Your task to perform on an android device: Go to ESPN.com Image 0: 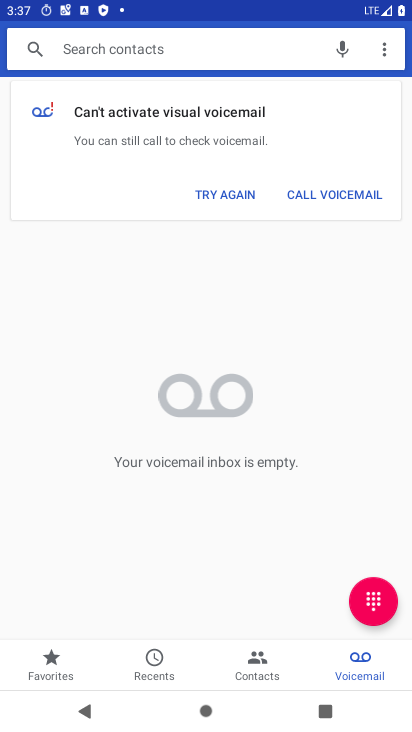
Step 0: press home button
Your task to perform on an android device: Go to ESPN.com Image 1: 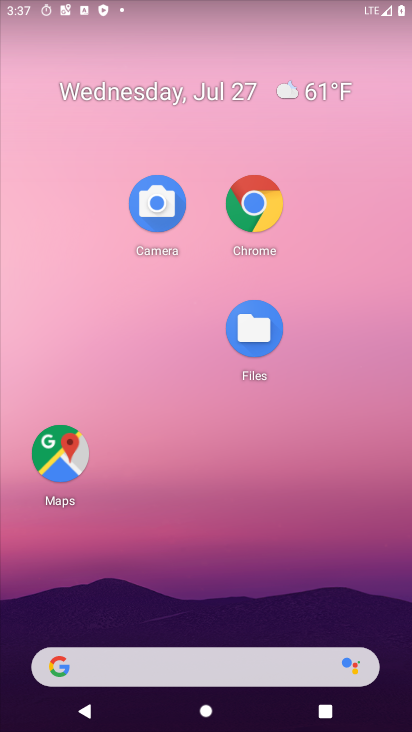
Step 1: click (255, 196)
Your task to perform on an android device: Go to ESPN.com Image 2: 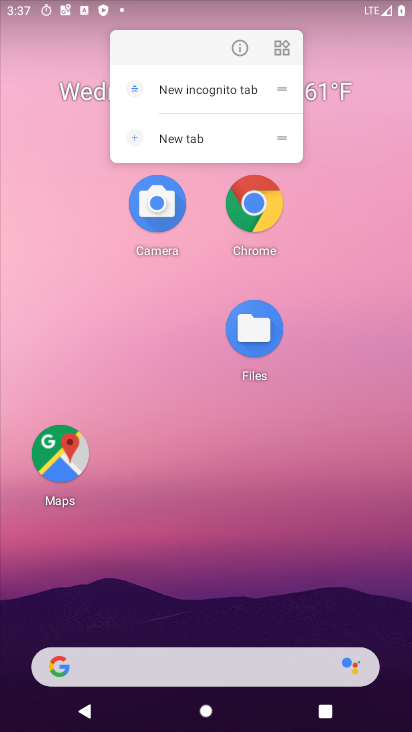
Step 2: click (259, 230)
Your task to perform on an android device: Go to ESPN.com Image 3: 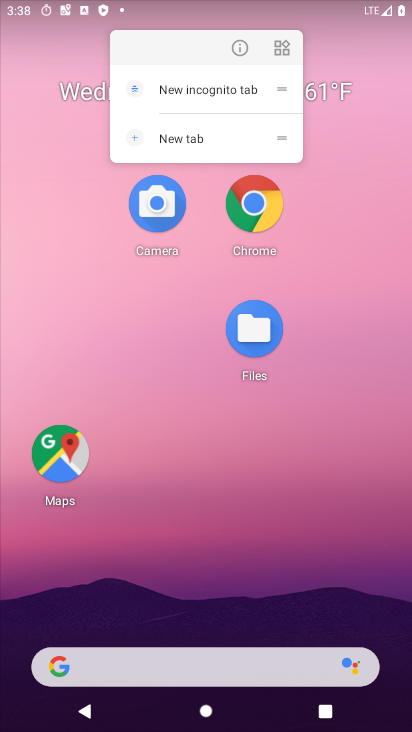
Step 3: click (259, 230)
Your task to perform on an android device: Go to ESPN.com Image 4: 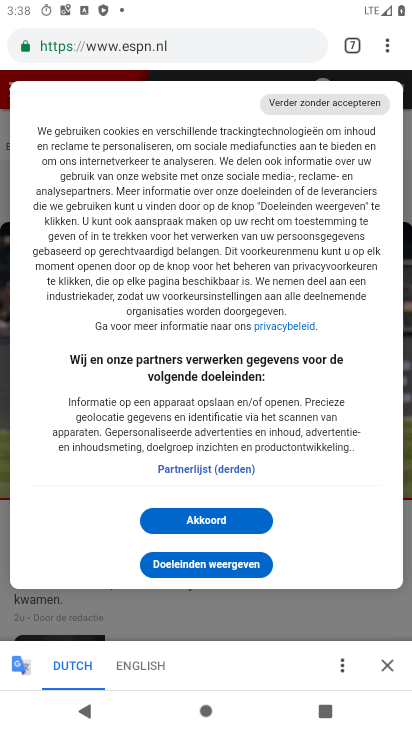
Step 4: click (360, 47)
Your task to perform on an android device: Go to ESPN.com Image 5: 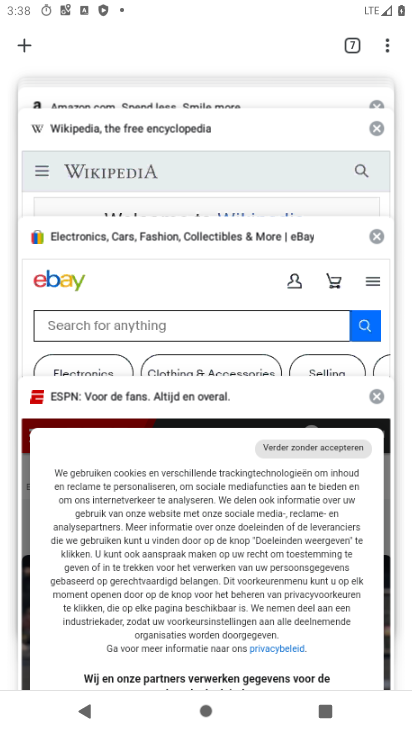
Step 5: click (20, 48)
Your task to perform on an android device: Go to ESPN.com Image 6: 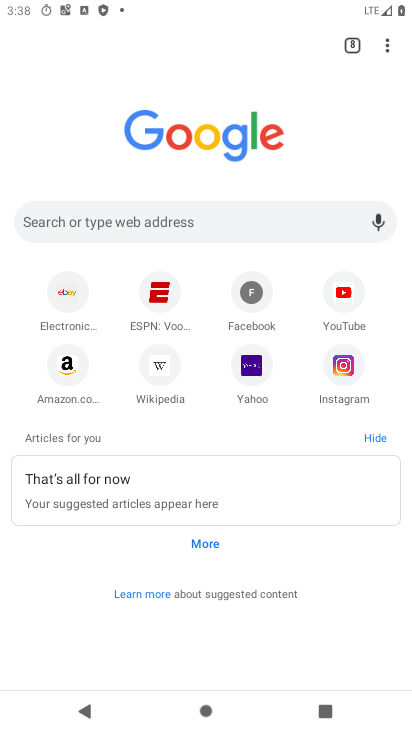
Step 6: click (148, 323)
Your task to perform on an android device: Go to ESPN.com Image 7: 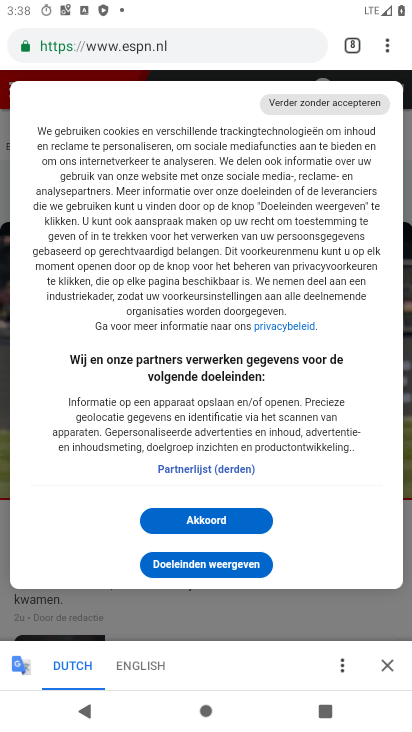
Step 7: task complete